Your task to perform on an android device: Open the map Image 0: 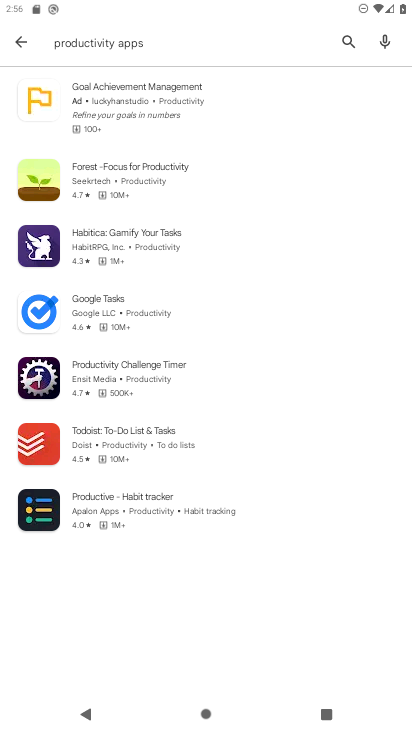
Step 0: click (408, 528)
Your task to perform on an android device: Open the map Image 1: 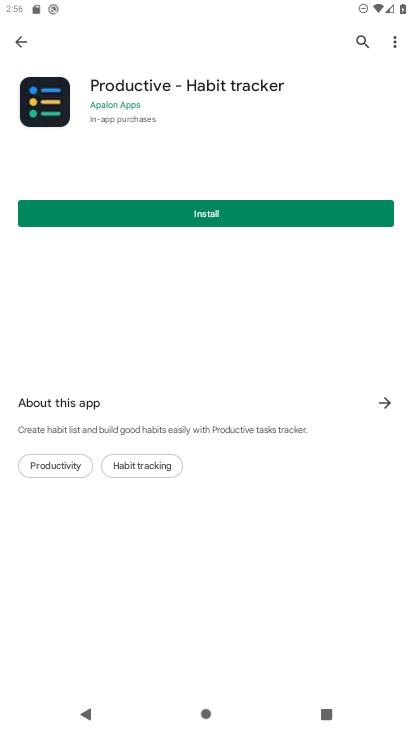
Step 1: press home button
Your task to perform on an android device: Open the map Image 2: 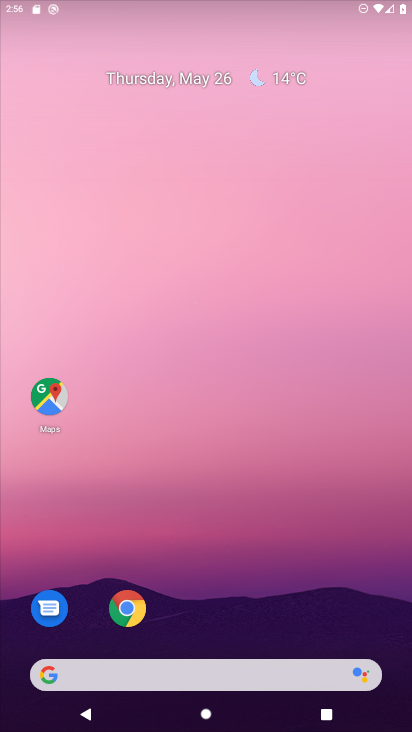
Step 2: drag from (214, 646) to (277, 118)
Your task to perform on an android device: Open the map Image 3: 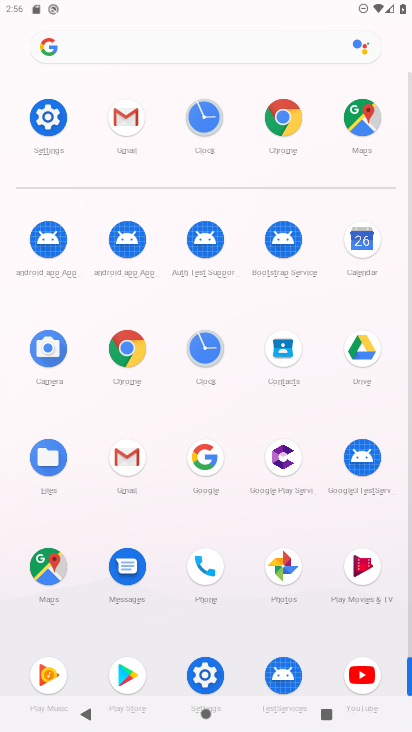
Step 3: click (362, 131)
Your task to perform on an android device: Open the map Image 4: 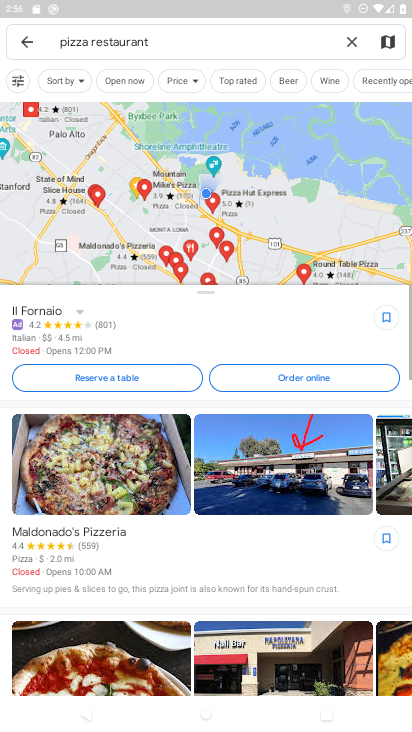
Step 4: task complete